Your task to perform on an android device: Open Android settings Image 0: 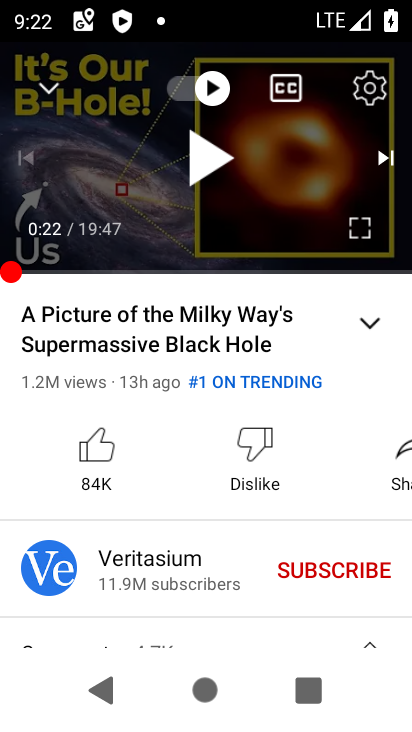
Step 0: press home button
Your task to perform on an android device: Open Android settings Image 1: 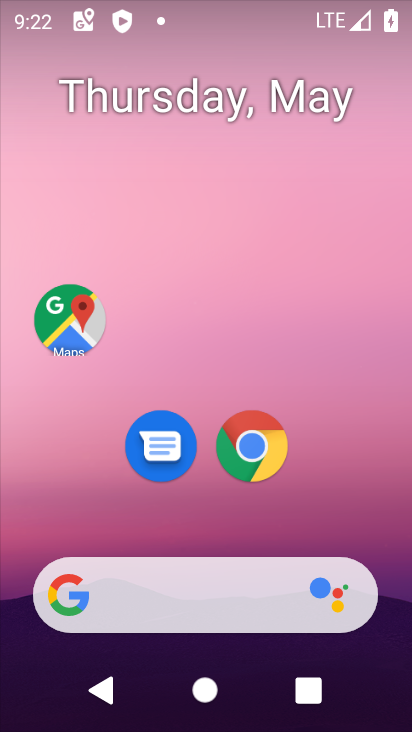
Step 1: drag from (388, 595) to (380, 160)
Your task to perform on an android device: Open Android settings Image 2: 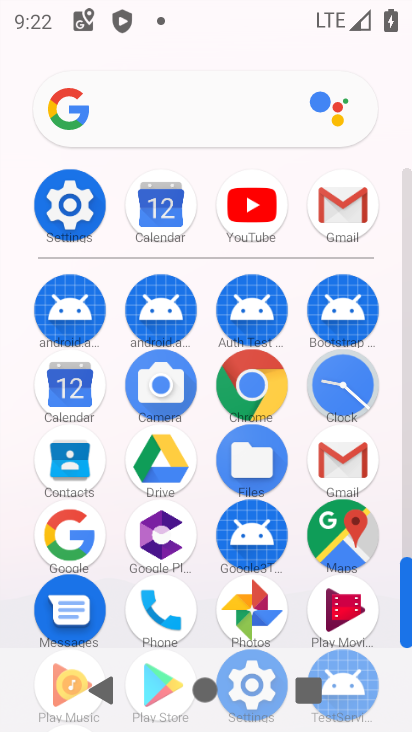
Step 2: click (404, 656)
Your task to perform on an android device: Open Android settings Image 3: 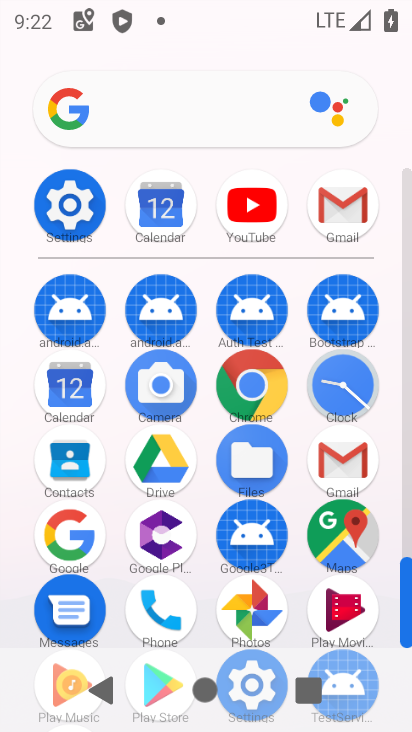
Step 3: click (408, 541)
Your task to perform on an android device: Open Android settings Image 4: 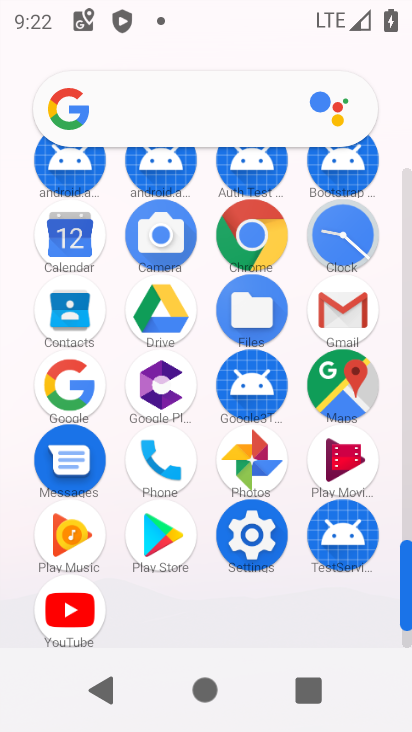
Step 4: click (248, 534)
Your task to perform on an android device: Open Android settings Image 5: 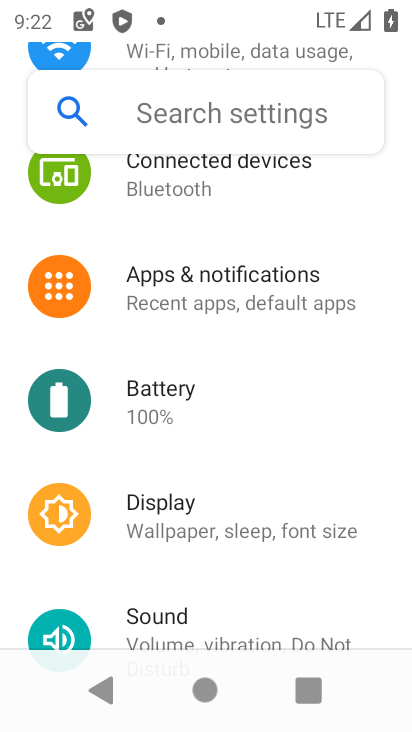
Step 5: drag from (351, 596) to (393, 286)
Your task to perform on an android device: Open Android settings Image 6: 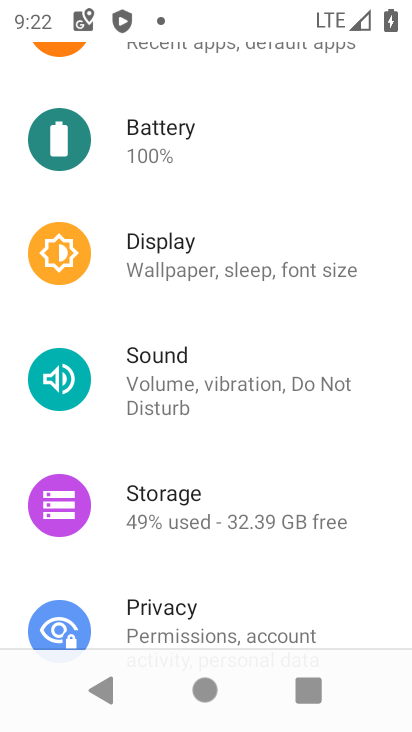
Step 6: drag from (330, 592) to (387, 214)
Your task to perform on an android device: Open Android settings Image 7: 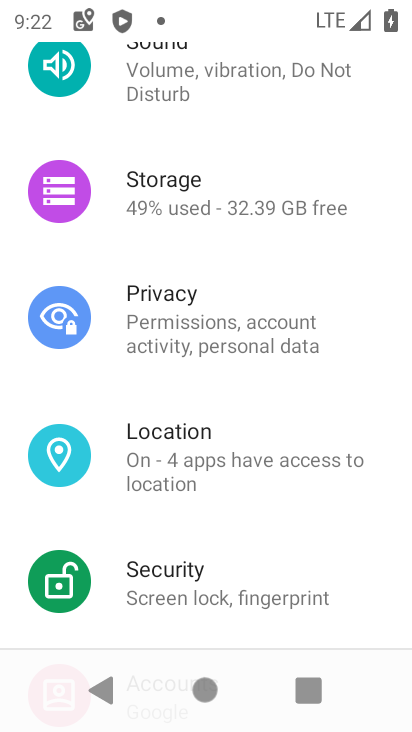
Step 7: drag from (348, 607) to (366, 255)
Your task to perform on an android device: Open Android settings Image 8: 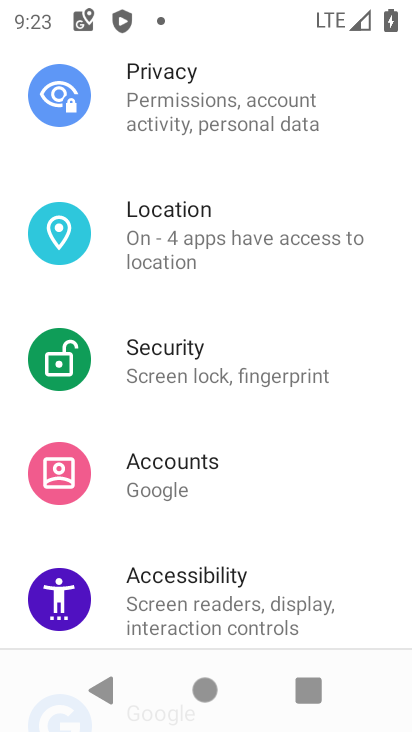
Step 8: drag from (349, 567) to (353, 303)
Your task to perform on an android device: Open Android settings Image 9: 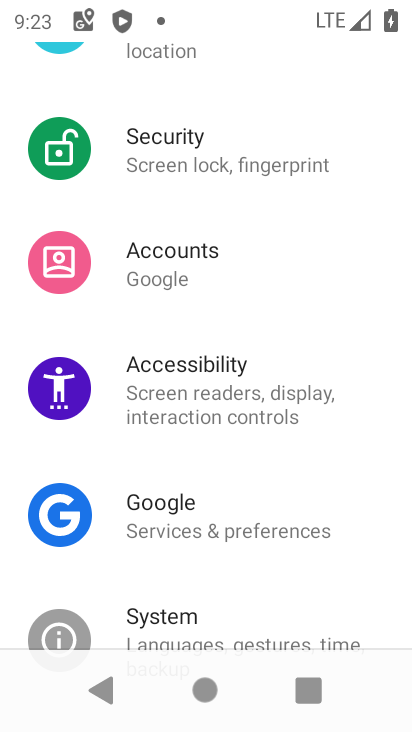
Step 9: drag from (384, 615) to (394, 280)
Your task to perform on an android device: Open Android settings Image 10: 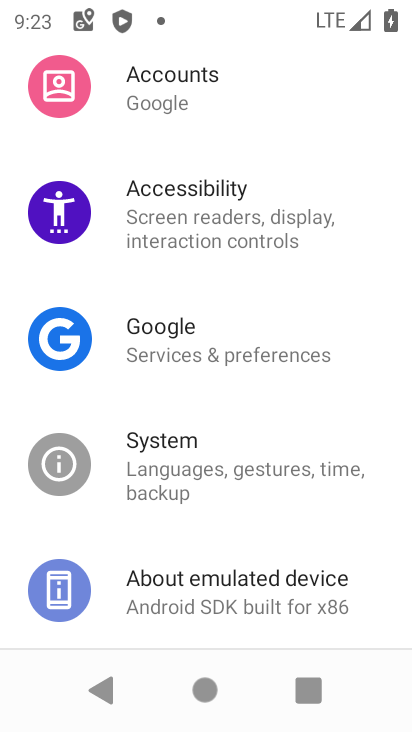
Step 10: click (184, 606)
Your task to perform on an android device: Open Android settings Image 11: 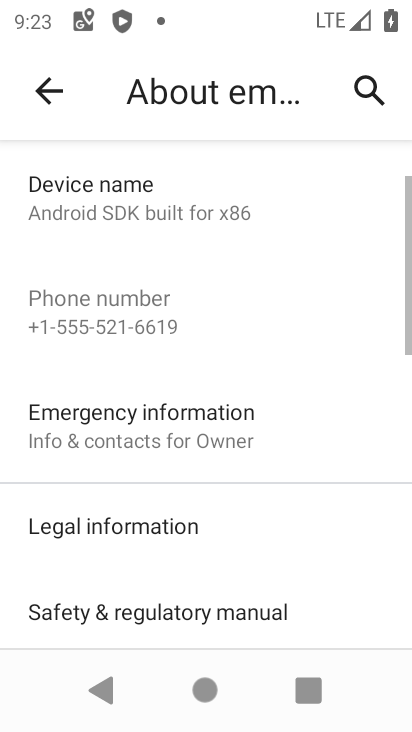
Step 11: task complete